Your task to perform on an android device: see tabs open on other devices in the chrome app Image 0: 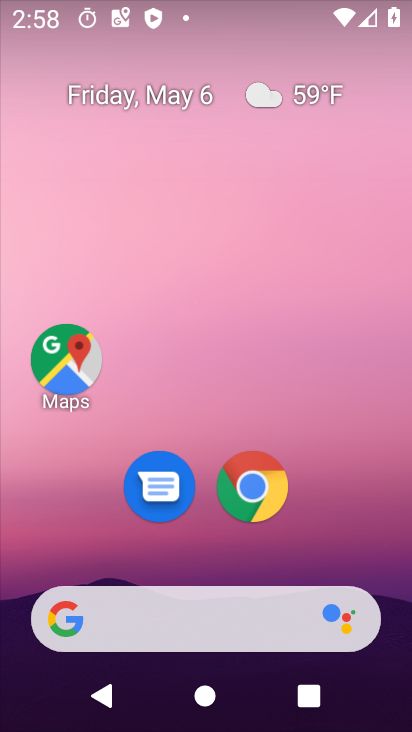
Step 0: click (247, 485)
Your task to perform on an android device: see tabs open on other devices in the chrome app Image 1: 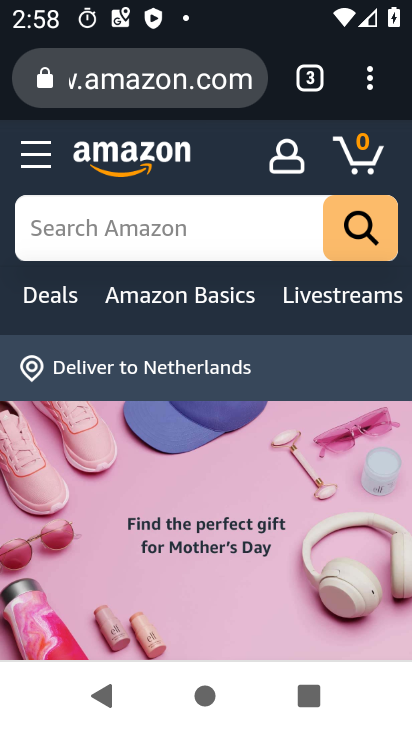
Step 1: click (368, 93)
Your task to perform on an android device: see tabs open on other devices in the chrome app Image 2: 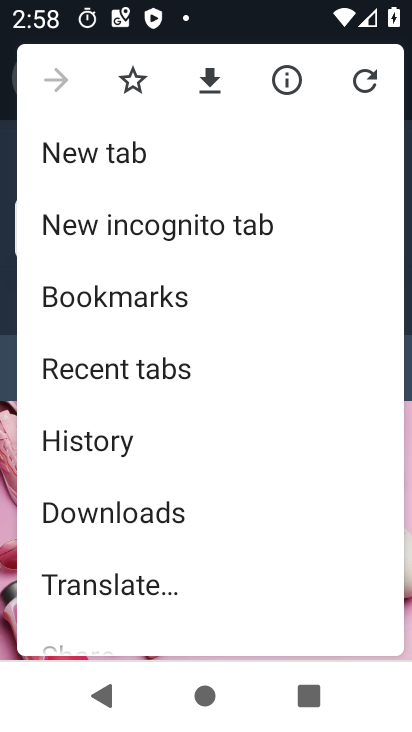
Step 2: click (163, 366)
Your task to perform on an android device: see tabs open on other devices in the chrome app Image 3: 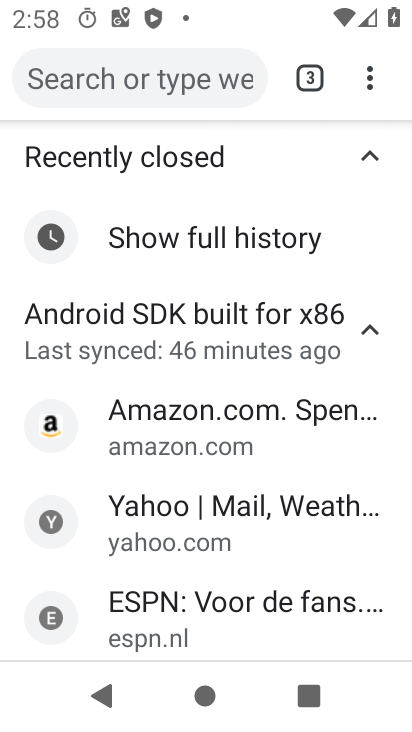
Step 3: task complete